Your task to perform on an android device: turn vacation reply on in the gmail app Image 0: 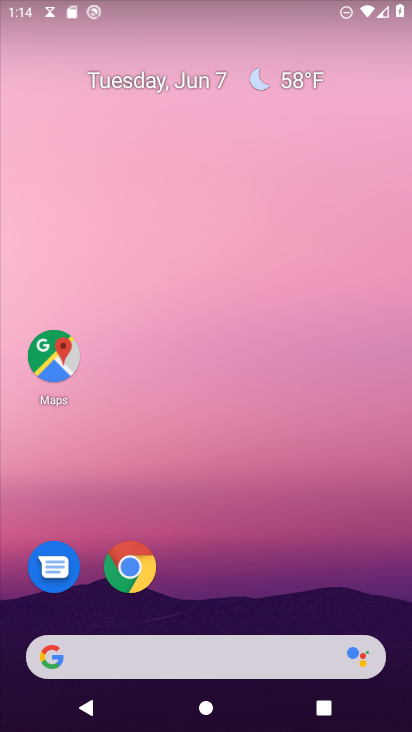
Step 0: drag from (391, 688) to (373, 60)
Your task to perform on an android device: turn vacation reply on in the gmail app Image 1: 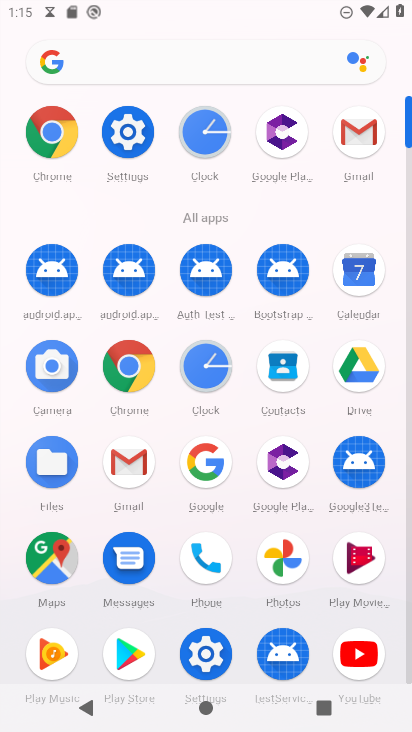
Step 1: click (123, 460)
Your task to perform on an android device: turn vacation reply on in the gmail app Image 2: 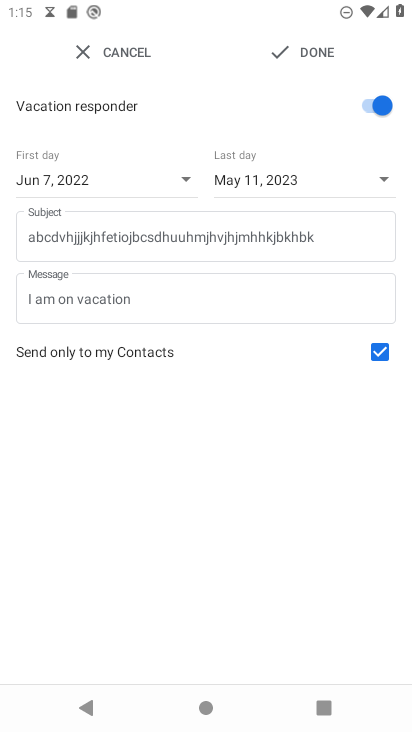
Step 2: press back button
Your task to perform on an android device: turn vacation reply on in the gmail app Image 3: 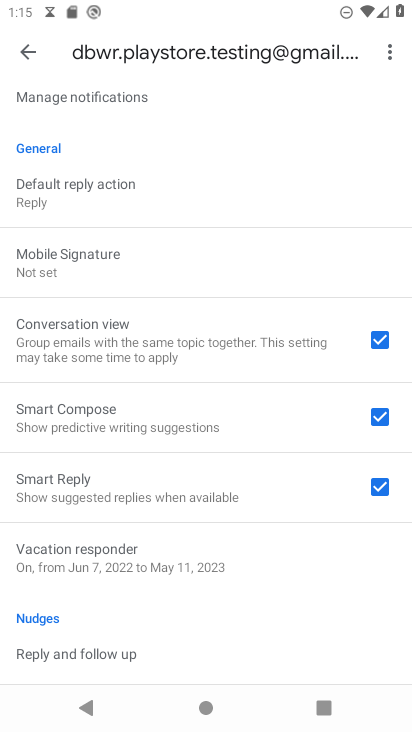
Step 3: click (115, 554)
Your task to perform on an android device: turn vacation reply on in the gmail app Image 4: 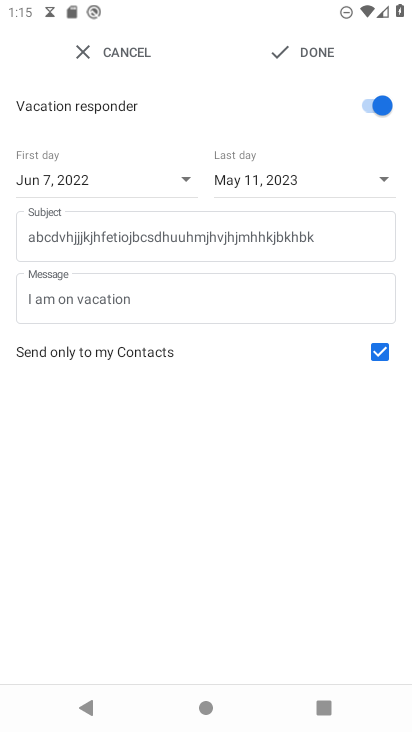
Step 4: task complete